Your task to perform on an android device: Search for pizza restaurants on Maps Image 0: 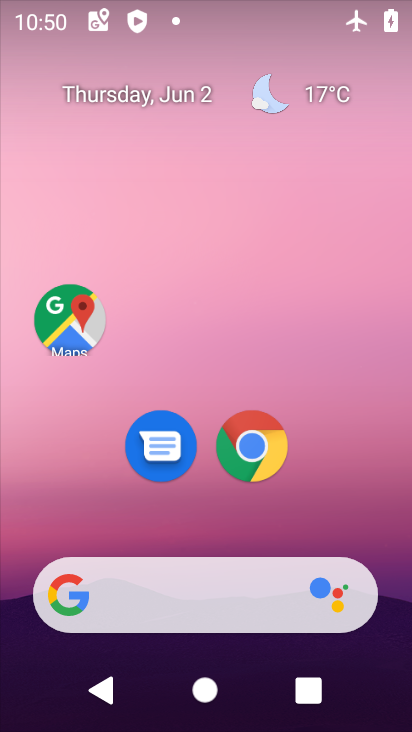
Step 0: drag from (373, 514) to (373, 161)
Your task to perform on an android device: Search for pizza restaurants on Maps Image 1: 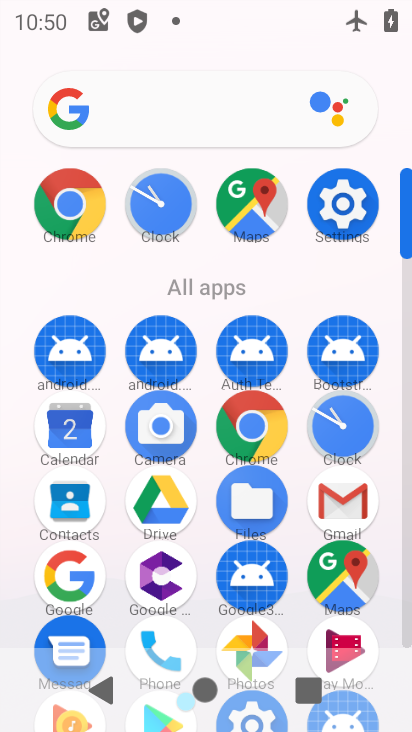
Step 1: drag from (294, 527) to (284, 274)
Your task to perform on an android device: Search for pizza restaurants on Maps Image 2: 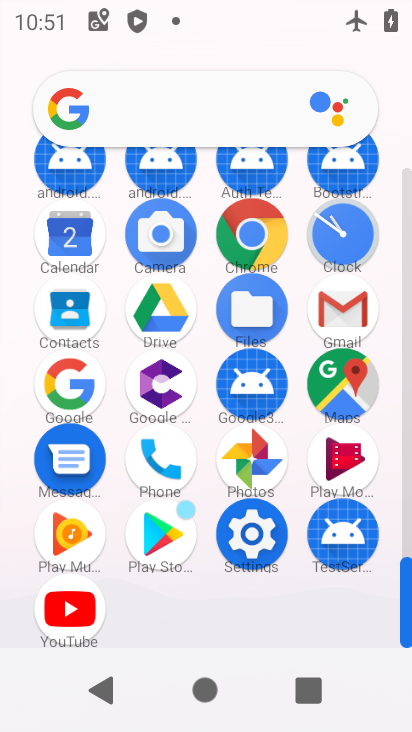
Step 2: click (346, 395)
Your task to perform on an android device: Search for pizza restaurants on Maps Image 3: 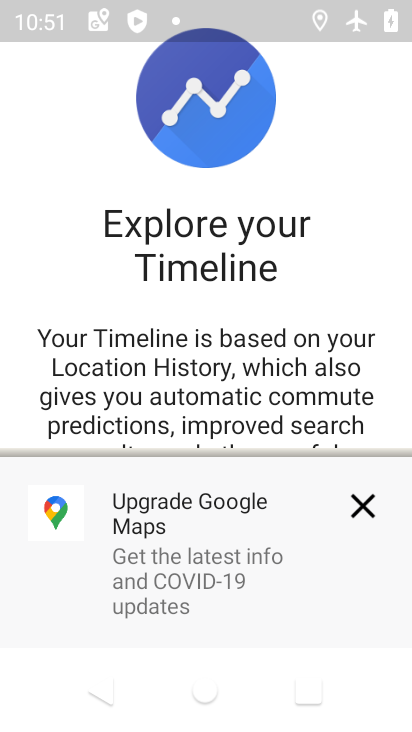
Step 3: press back button
Your task to perform on an android device: Search for pizza restaurants on Maps Image 4: 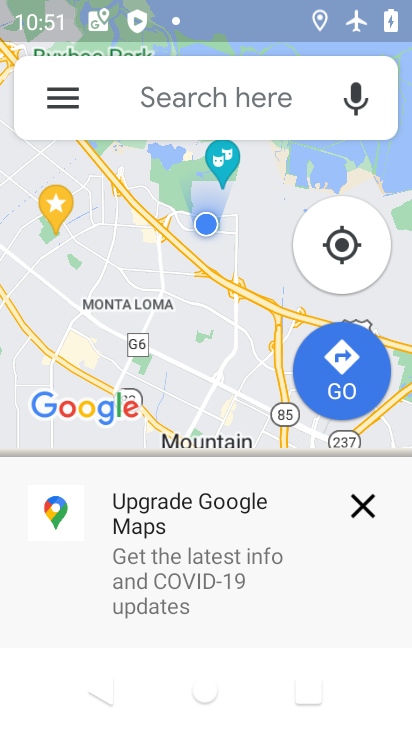
Step 4: click (284, 106)
Your task to perform on an android device: Search for pizza restaurants on Maps Image 5: 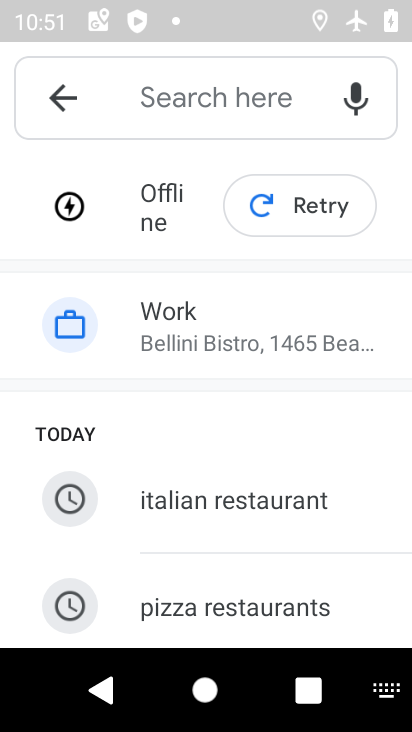
Step 5: type "pizz restaurants"
Your task to perform on an android device: Search for pizza restaurants on Maps Image 6: 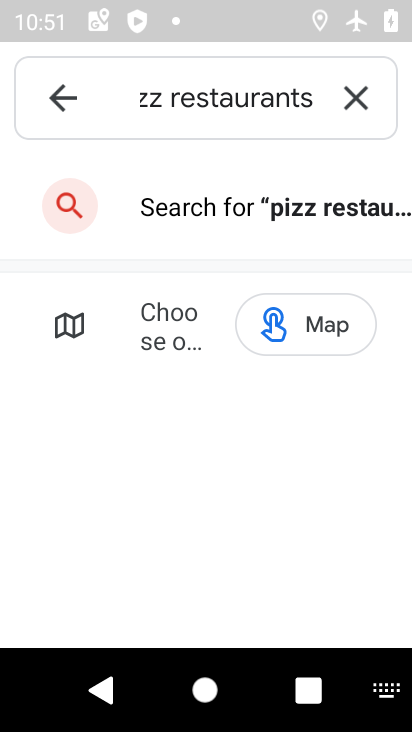
Step 6: click (372, 202)
Your task to perform on an android device: Search for pizza restaurants on Maps Image 7: 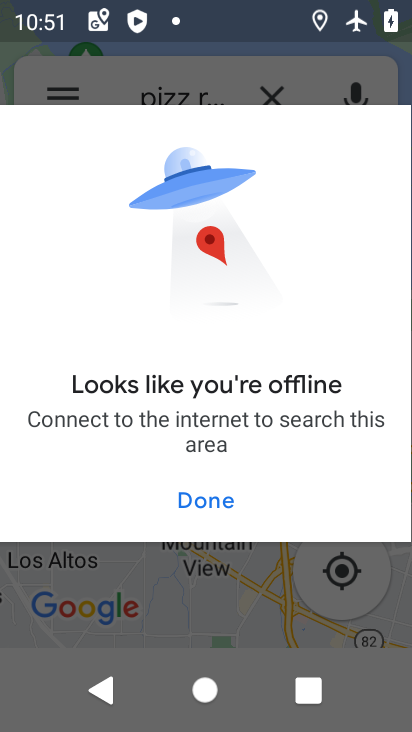
Step 7: task complete